Your task to perform on an android device: clear history in the chrome app Image 0: 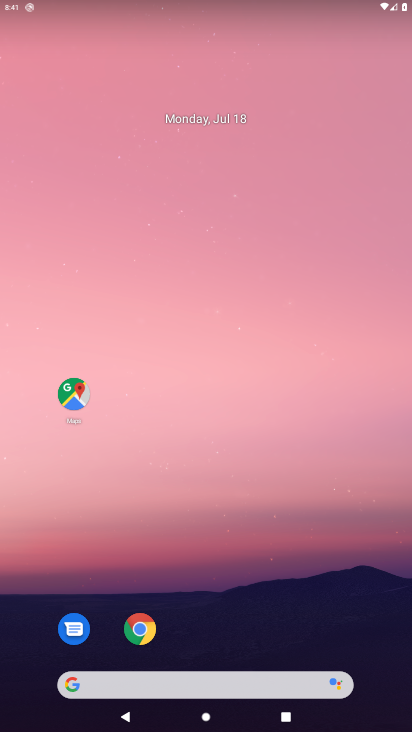
Step 0: click (146, 644)
Your task to perform on an android device: clear history in the chrome app Image 1: 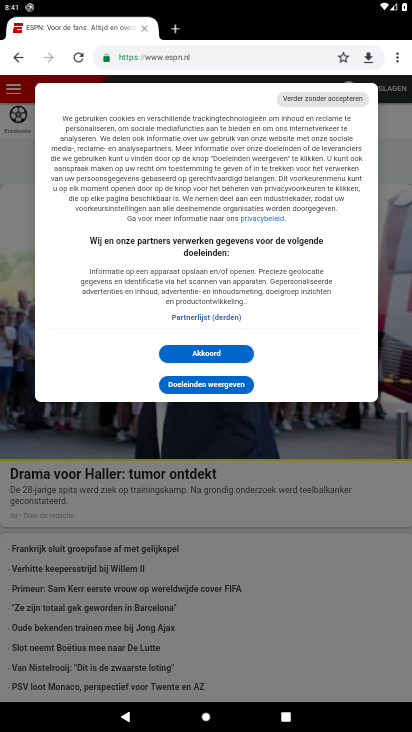
Step 1: click (394, 60)
Your task to perform on an android device: clear history in the chrome app Image 2: 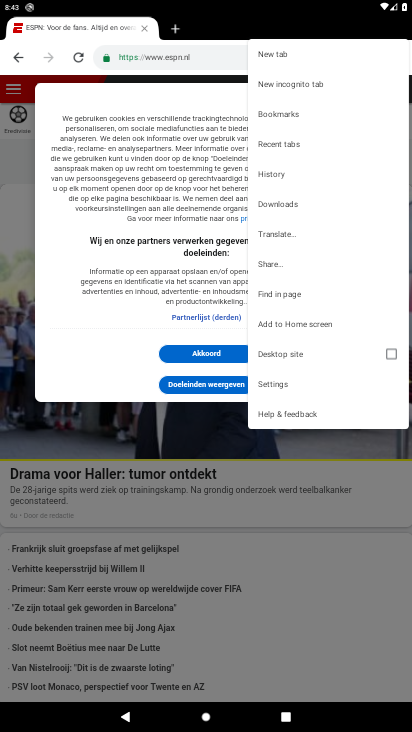
Step 2: click (266, 176)
Your task to perform on an android device: clear history in the chrome app Image 3: 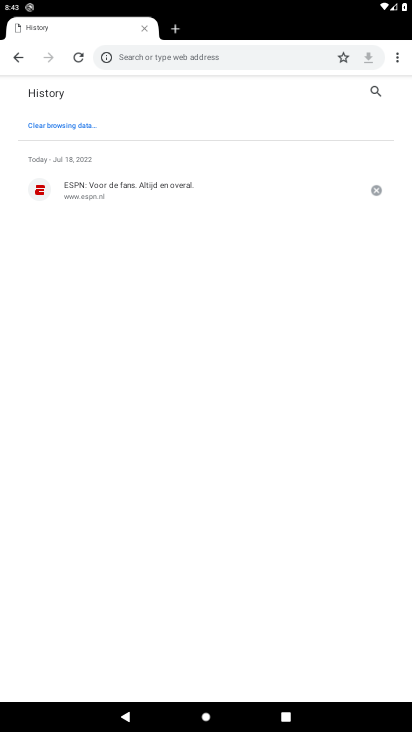
Step 3: click (66, 129)
Your task to perform on an android device: clear history in the chrome app Image 4: 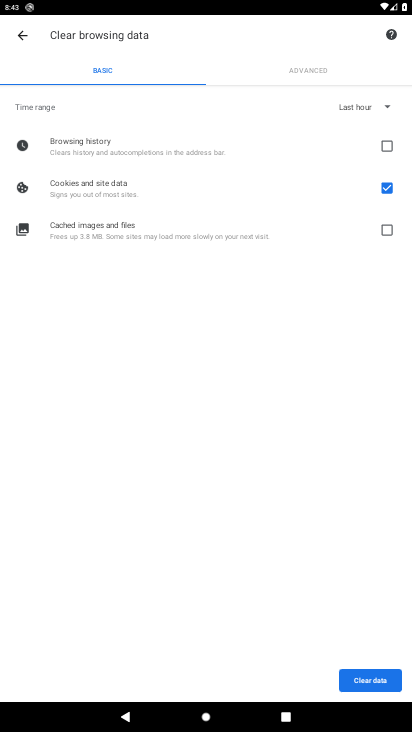
Step 4: click (355, 676)
Your task to perform on an android device: clear history in the chrome app Image 5: 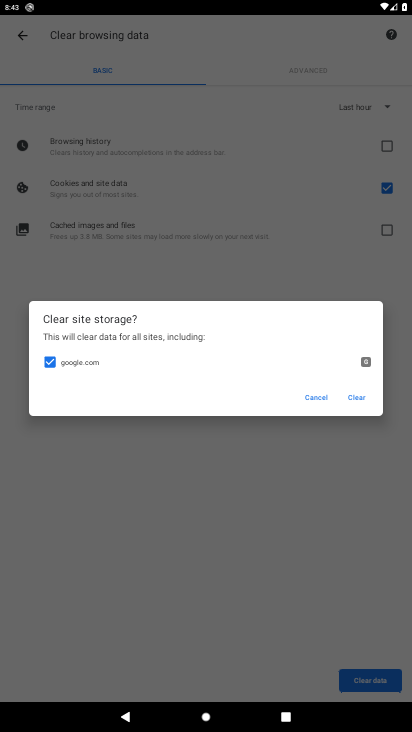
Step 5: click (353, 397)
Your task to perform on an android device: clear history in the chrome app Image 6: 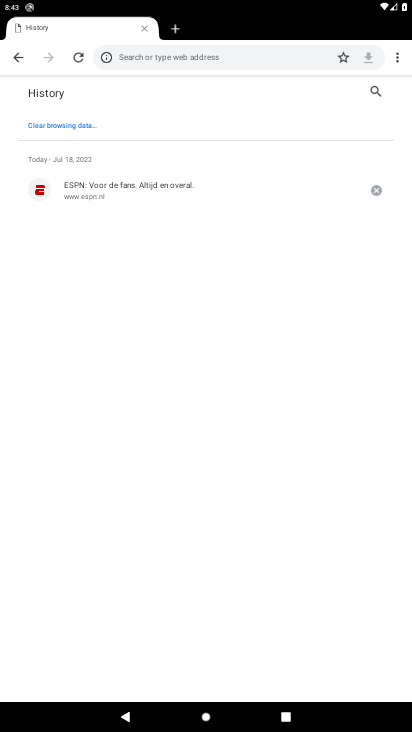
Step 6: task complete